Your task to perform on an android device: Open accessibility settings Image 0: 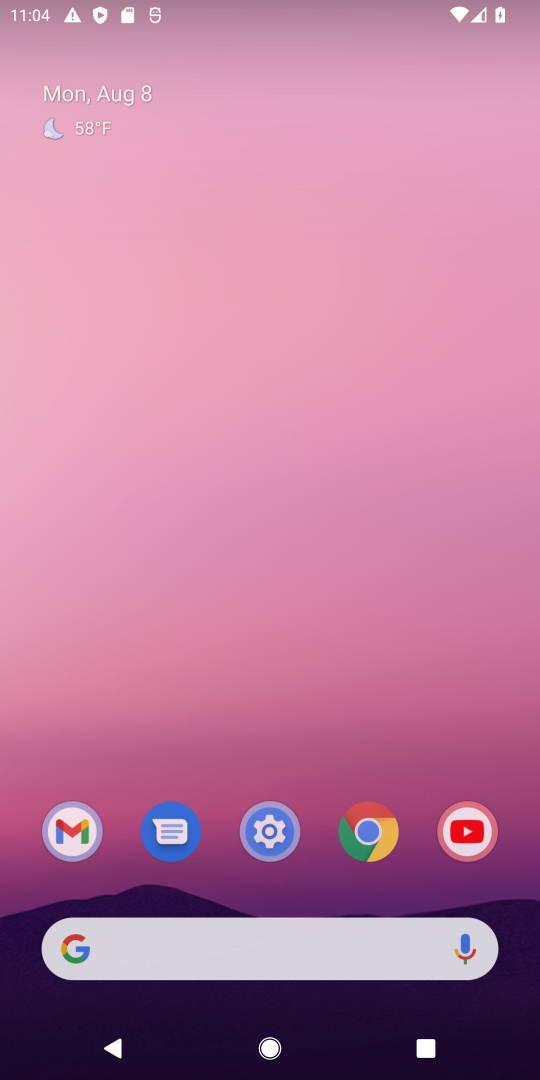
Step 0: press home button
Your task to perform on an android device: Open accessibility settings Image 1: 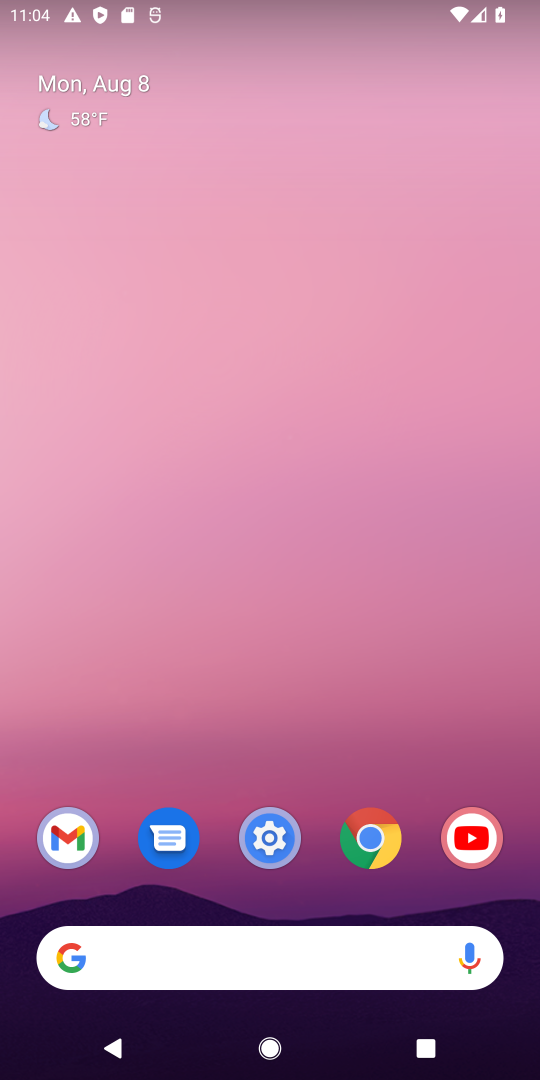
Step 1: click (266, 835)
Your task to perform on an android device: Open accessibility settings Image 2: 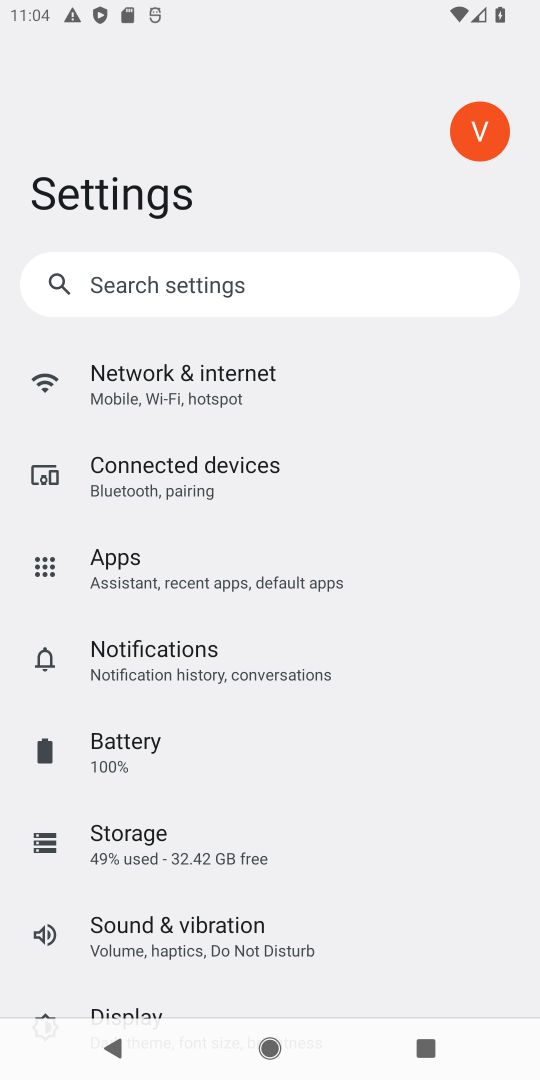
Step 2: drag from (328, 905) to (363, 359)
Your task to perform on an android device: Open accessibility settings Image 3: 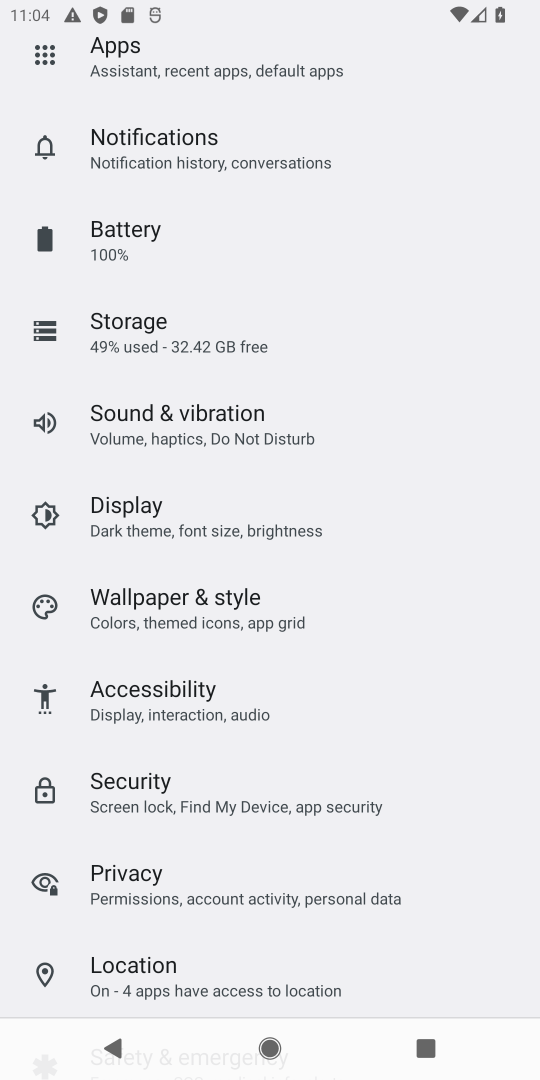
Step 3: click (168, 693)
Your task to perform on an android device: Open accessibility settings Image 4: 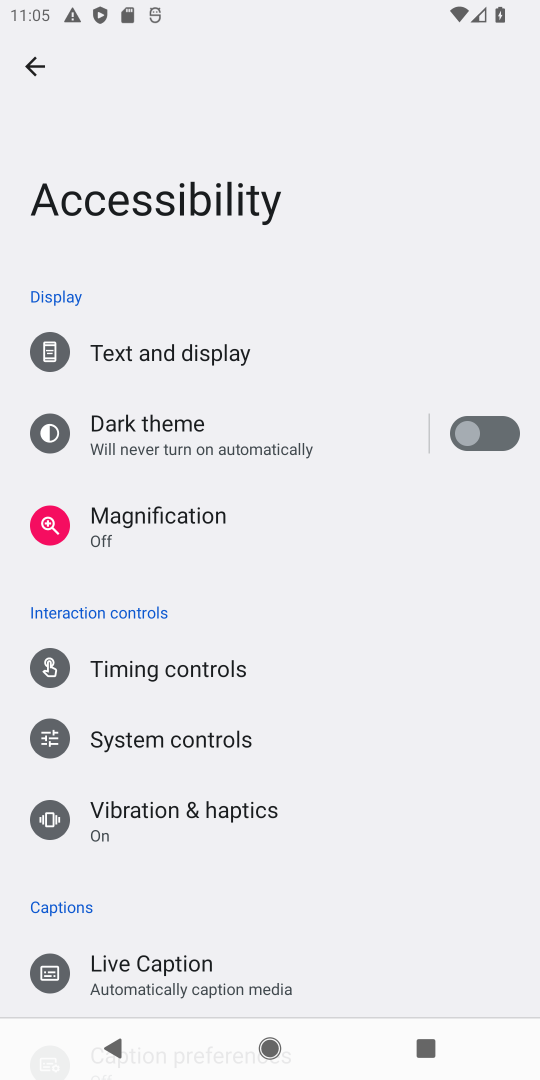
Step 4: task complete